Your task to perform on an android device: Open notification settings Image 0: 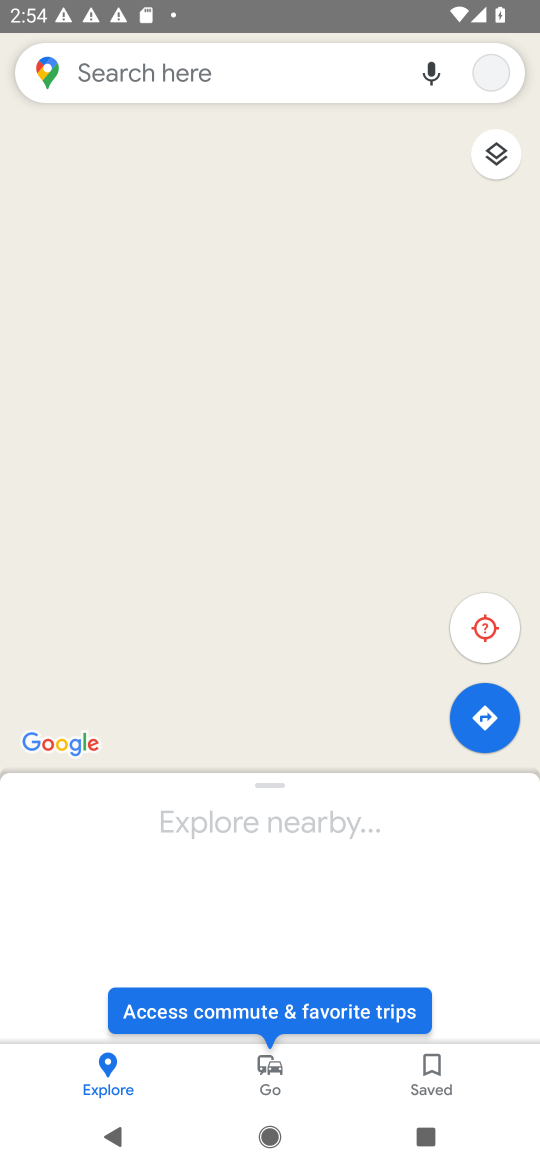
Step 0: press home button
Your task to perform on an android device: Open notification settings Image 1: 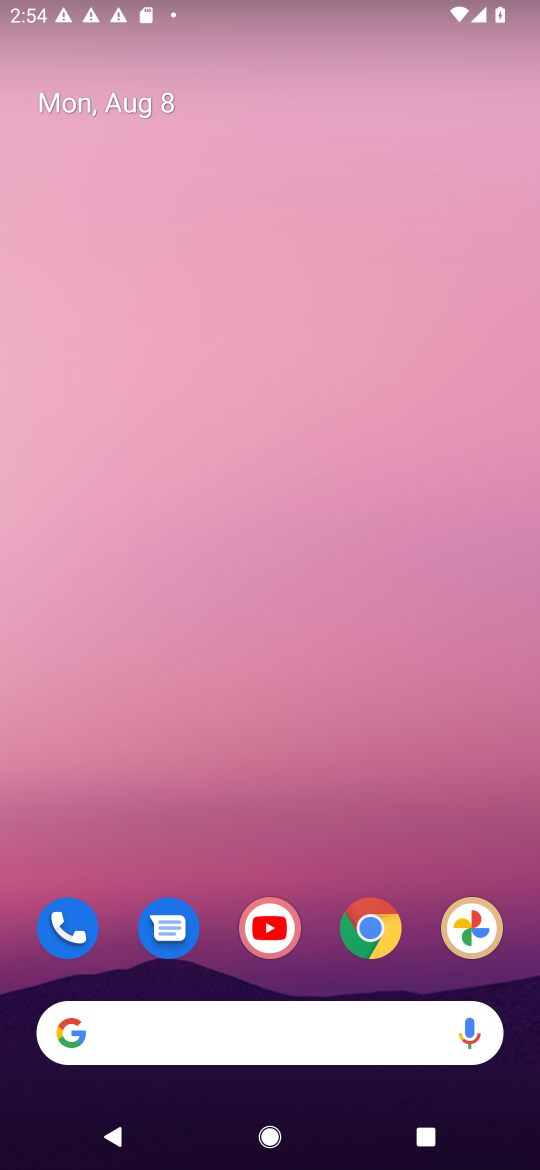
Step 1: drag from (216, 825) to (372, 6)
Your task to perform on an android device: Open notification settings Image 2: 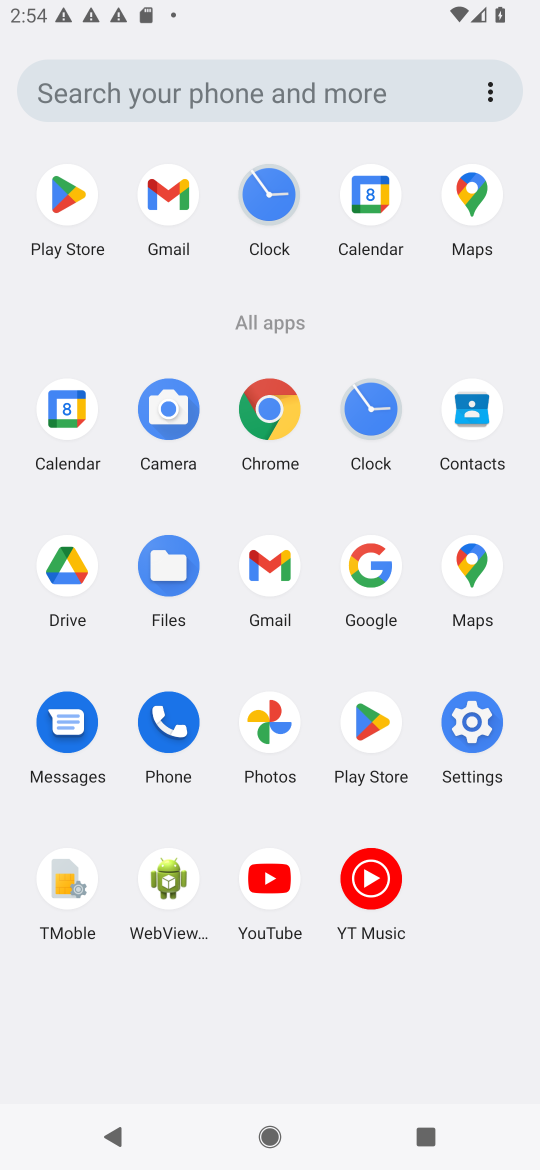
Step 2: click (474, 704)
Your task to perform on an android device: Open notification settings Image 3: 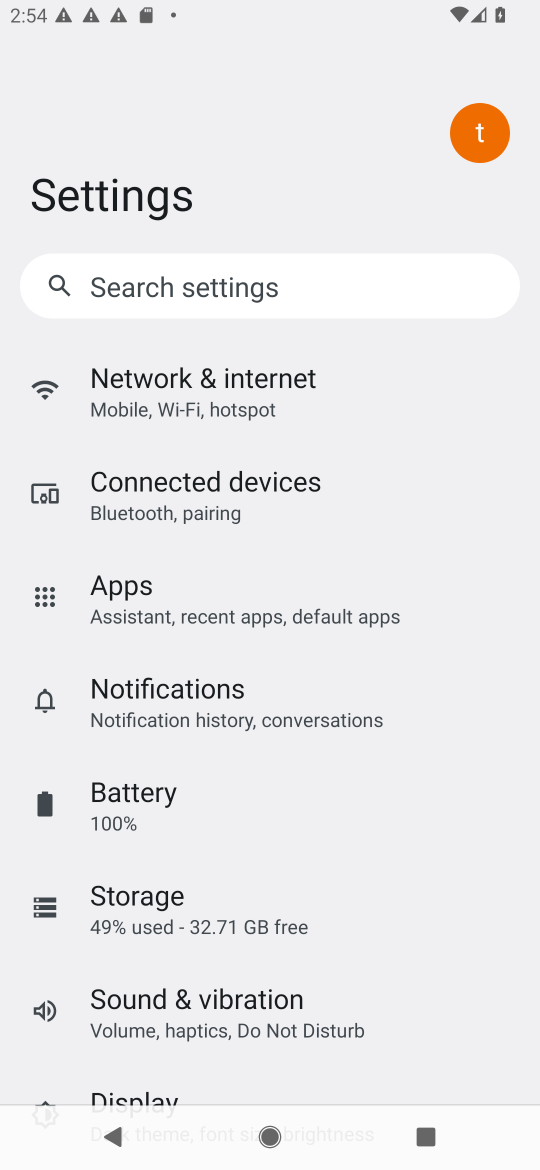
Step 3: click (183, 724)
Your task to perform on an android device: Open notification settings Image 4: 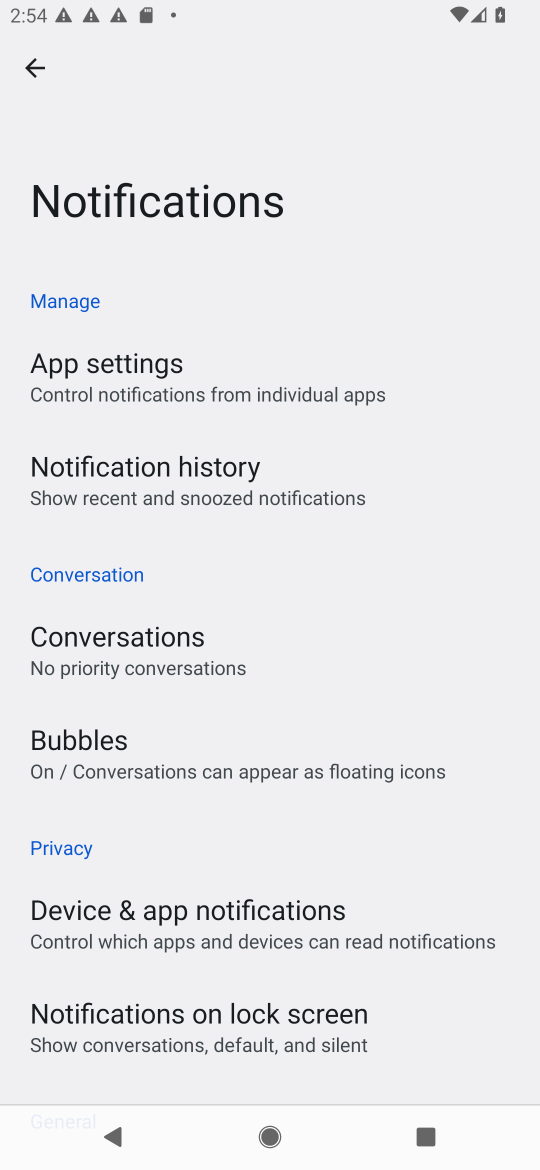
Step 4: task complete